Your task to perform on an android device: open a new tab in the chrome app Image 0: 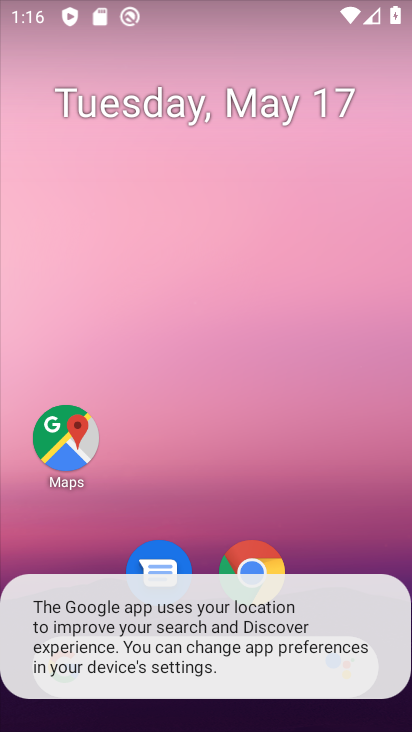
Step 0: click (261, 558)
Your task to perform on an android device: open a new tab in the chrome app Image 1: 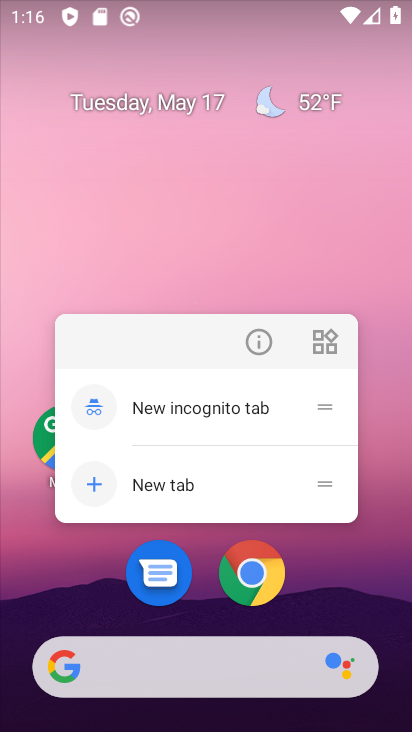
Step 1: click (169, 490)
Your task to perform on an android device: open a new tab in the chrome app Image 2: 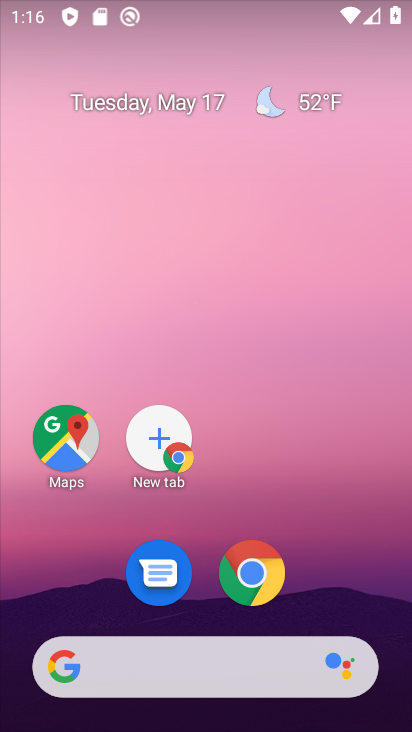
Step 2: click (254, 574)
Your task to perform on an android device: open a new tab in the chrome app Image 3: 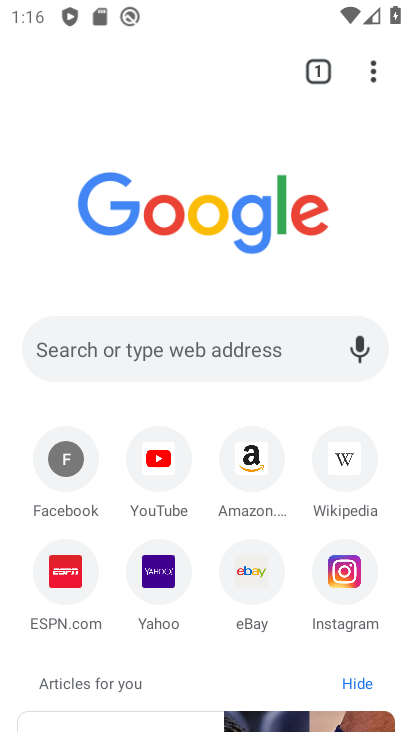
Step 3: task complete